Your task to perform on an android device: install app "Cash App" Image 0: 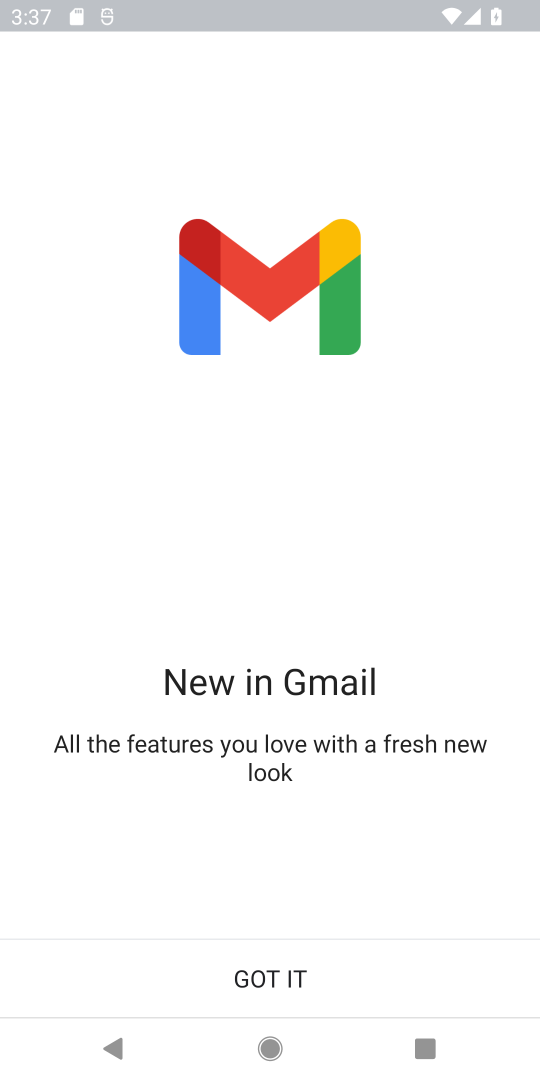
Step 0: press home button
Your task to perform on an android device: install app "Cash App" Image 1: 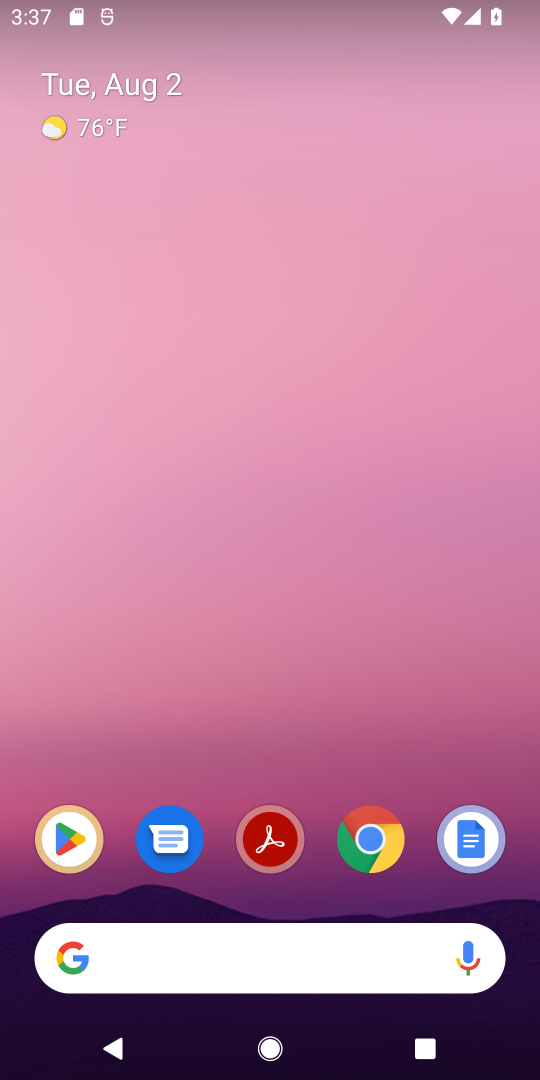
Step 1: click (73, 848)
Your task to perform on an android device: install app "Cash App" Image 2: 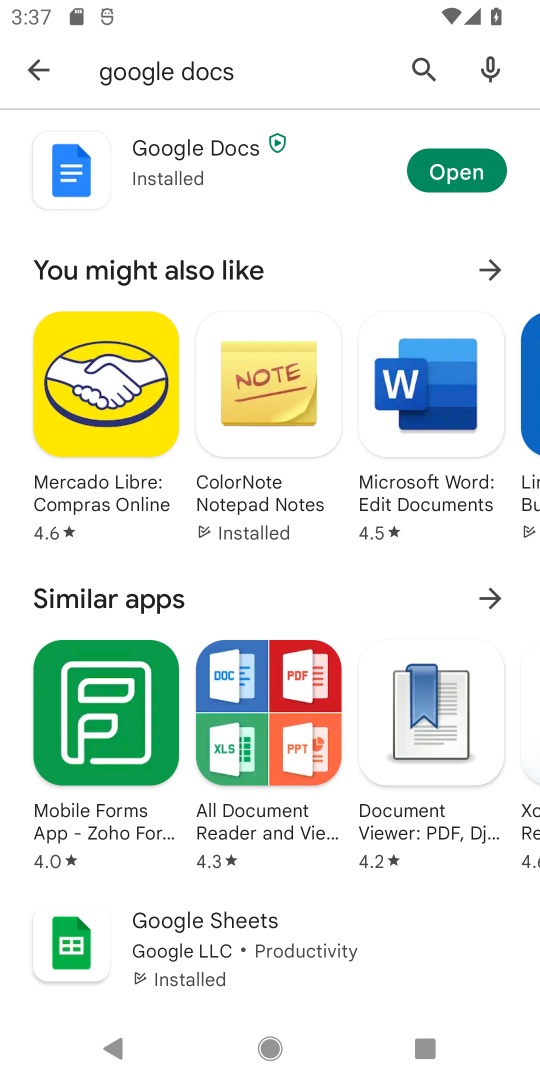
Step 2: click (410, 68)
Your task to perform on an android device: install app "Cash App" Image 3: 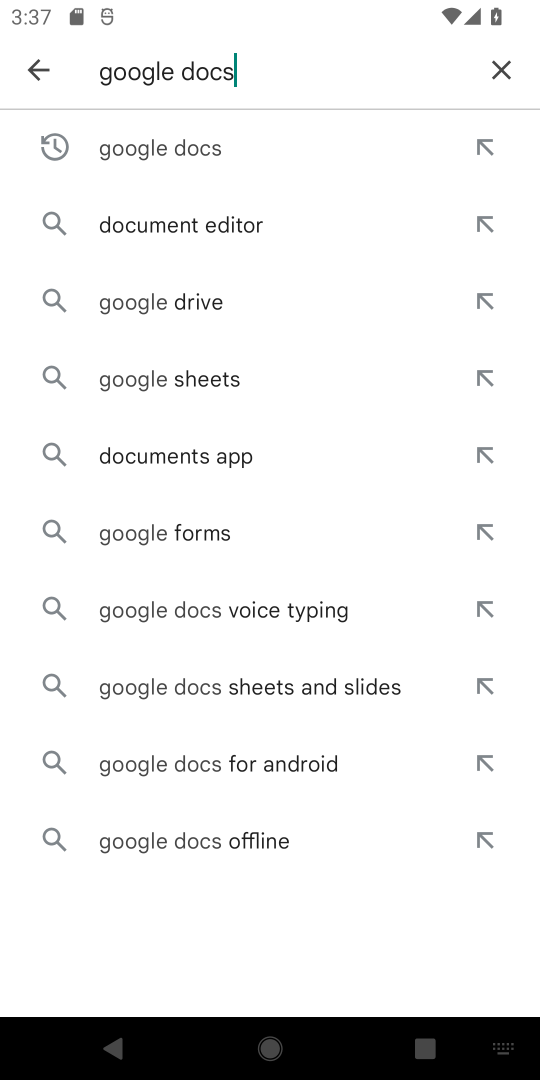
Step 3: click (515, 58)
Your task to perform on an android device: install app "Cash App" Image 4: 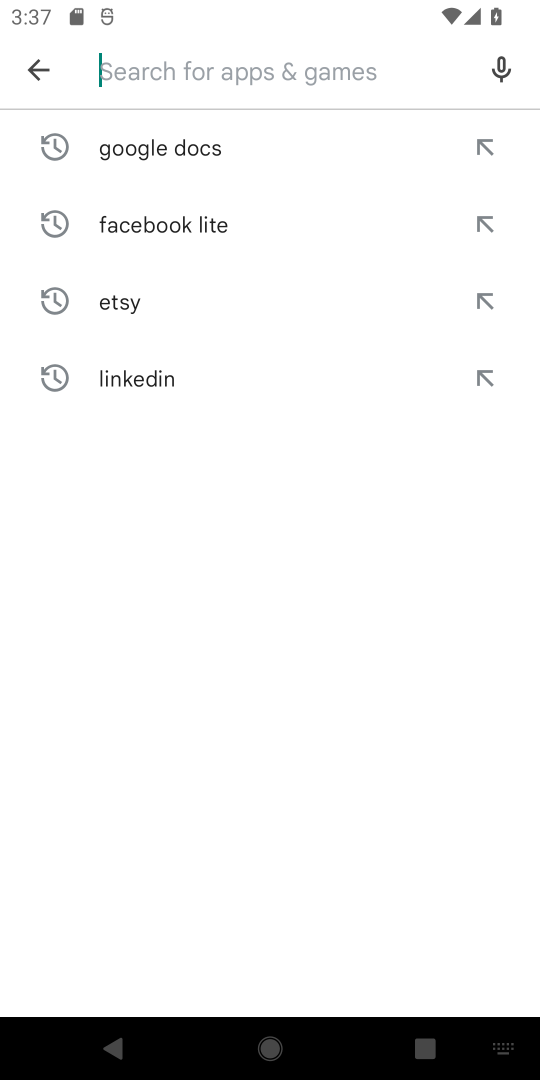
Step 4: type "cash app"
Your task to perform on an android device: install app "Cash App" Image 5: 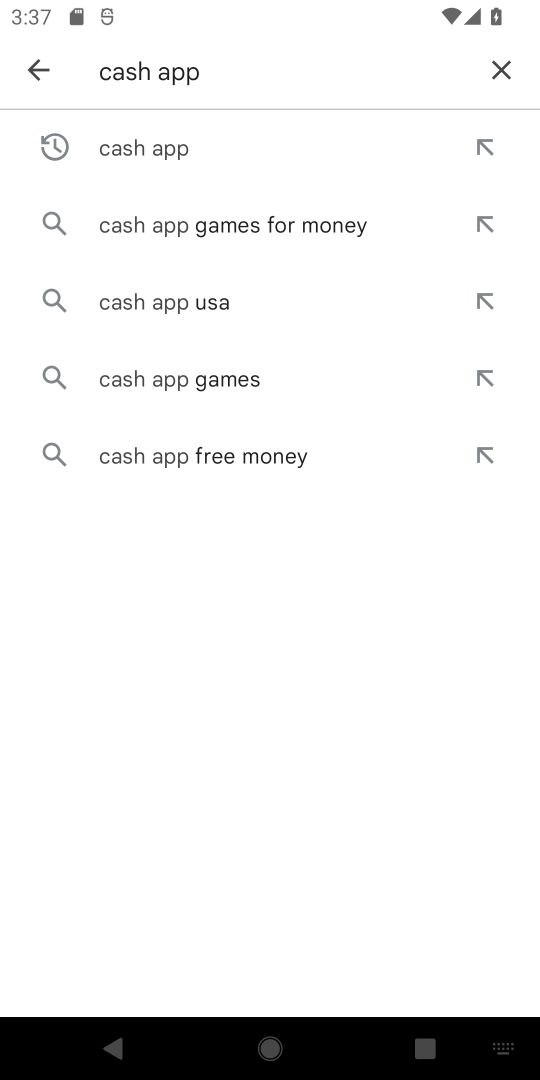
Step 5: click (300, 165)
Your task to perform on an android device: install app "Cash App" Image 6: 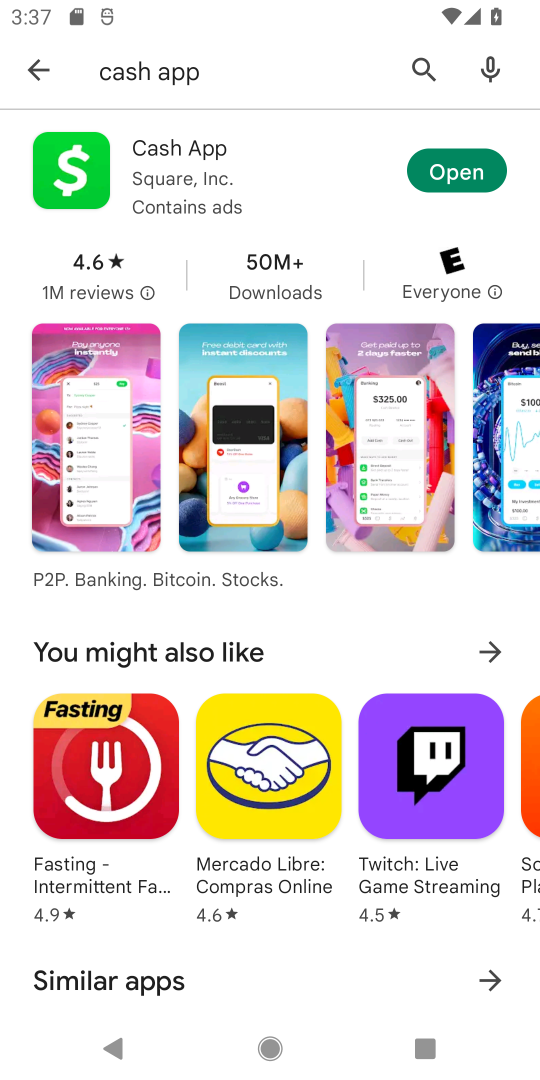
Step 6: click (471, 165)
Your task to perform on an android device: install app "Cash App" Image 7: 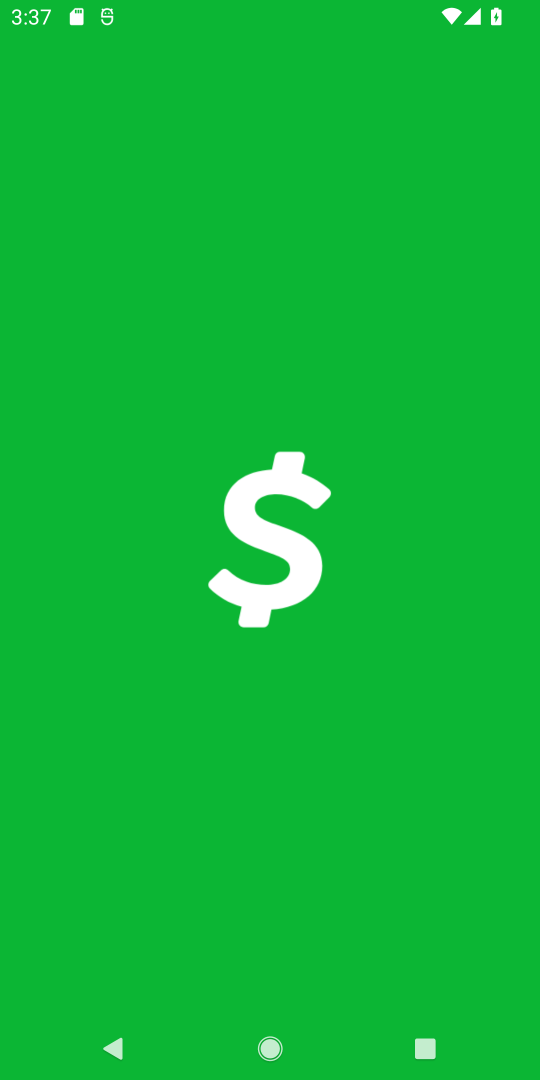
Step 7: task complete